Your task to perform on an android device: set the timer Image 0: 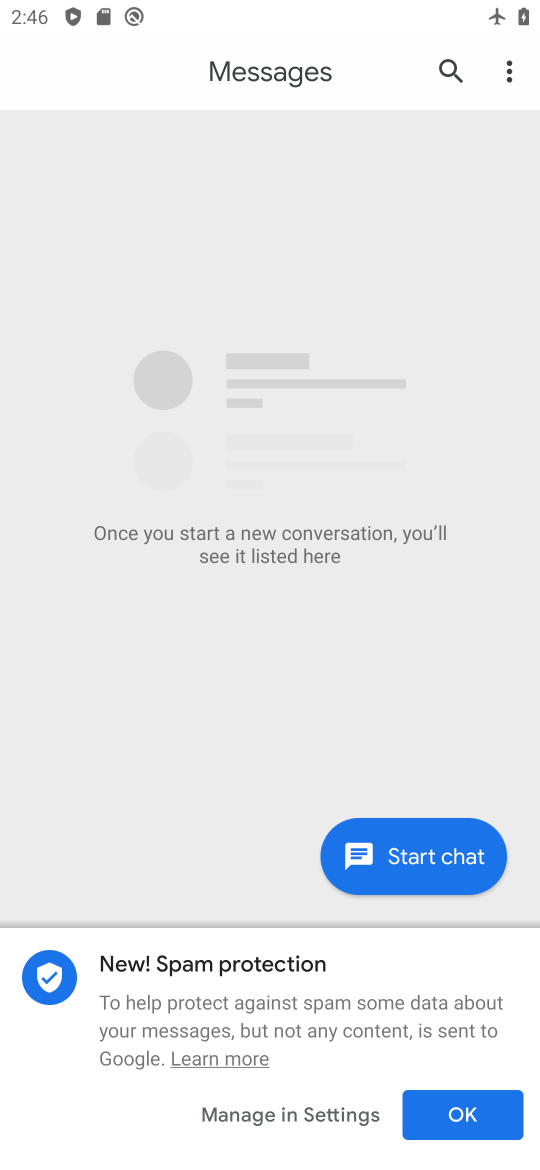
Step 0: task complete